Your task to perform on an android device: What's the weather like in Beijing? Image 0: 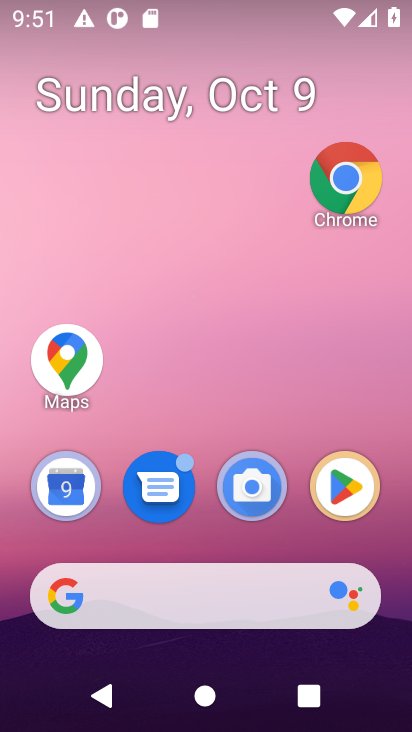
Step 0: click (331, 120)
Your task to perform on an android device: What's the weather like in Beijing? Image 1: 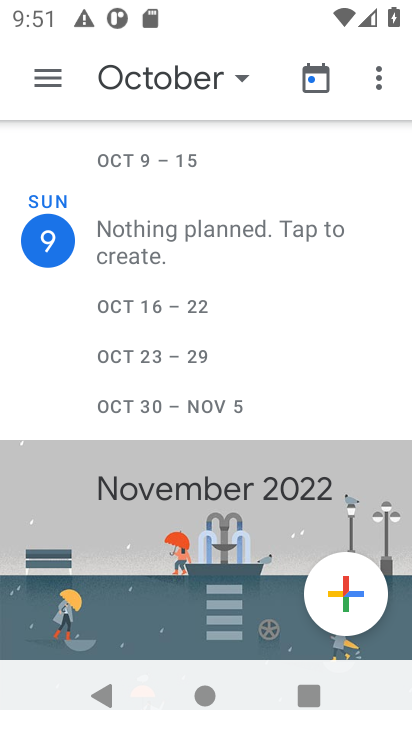
Step 1: press home button
Your task to perform on an android device: What's the weather like in Beijing? Image 2: 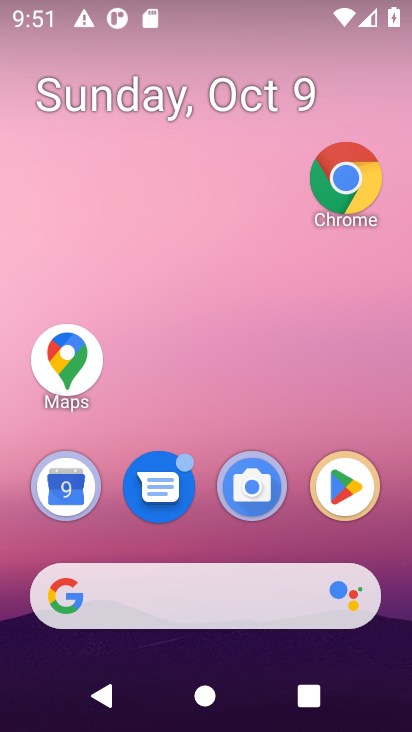
Step 2: click (230, 10)
Your task to perform on an android device: What's the weather like in Beijing? Image 3: 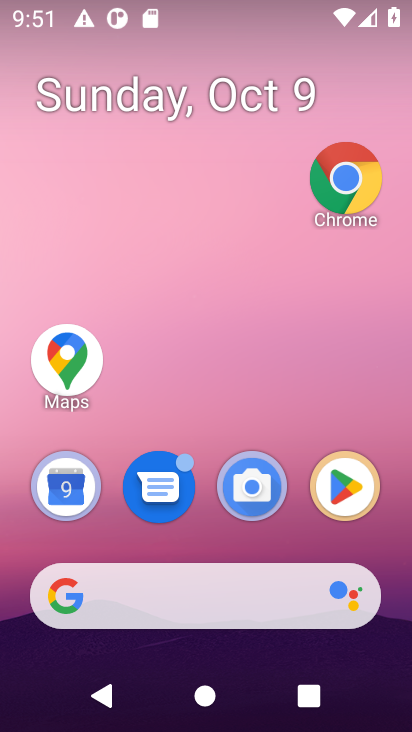
Step 3: click (204, 271)
Your task to perform on an android device: What's the weather like in Beijing? Image 4: 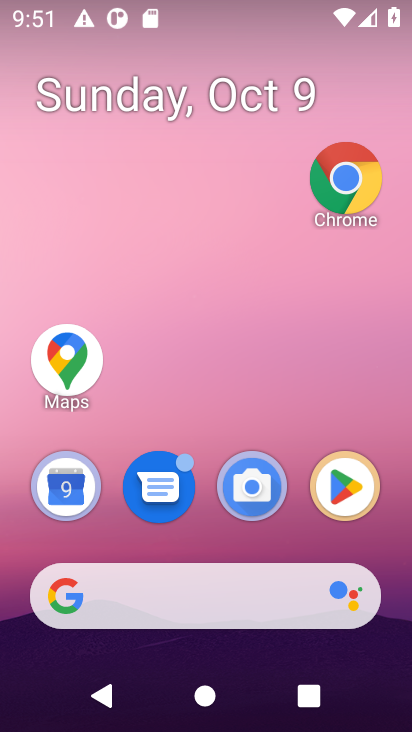
Step 4: drag from (241, 602) to (314, 101)
Your task to perform on an android device: What's the weather like in Beijing? Image 5: 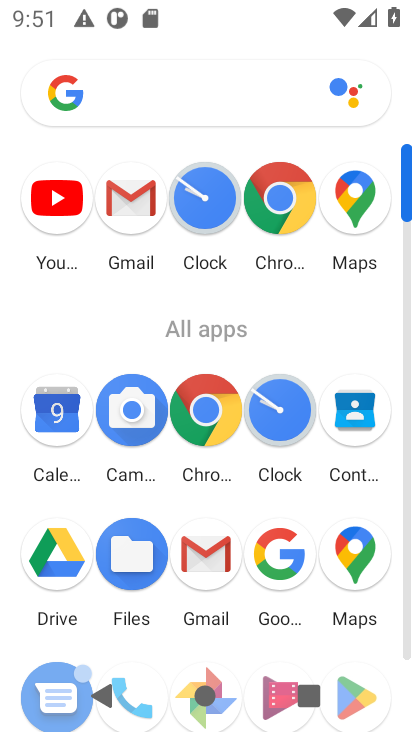
Step 5: click (284, 557)
Your task to perform on an android device: What's the weather like in Beijing? Image 6: 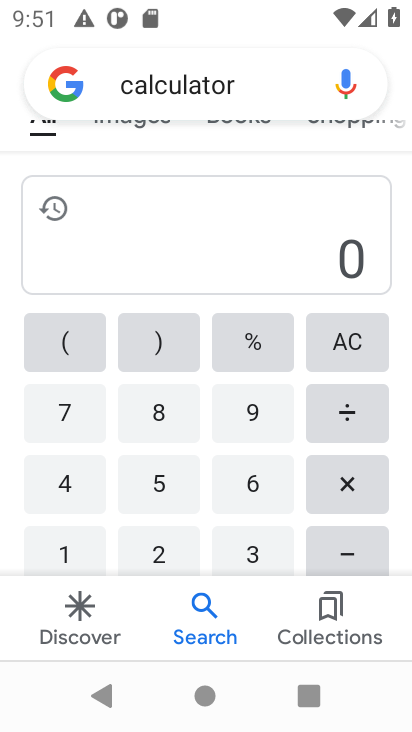
Step 6: click (294, 86)
Your task to perform on an android device: What's the weather like in Beijing? Image 7: 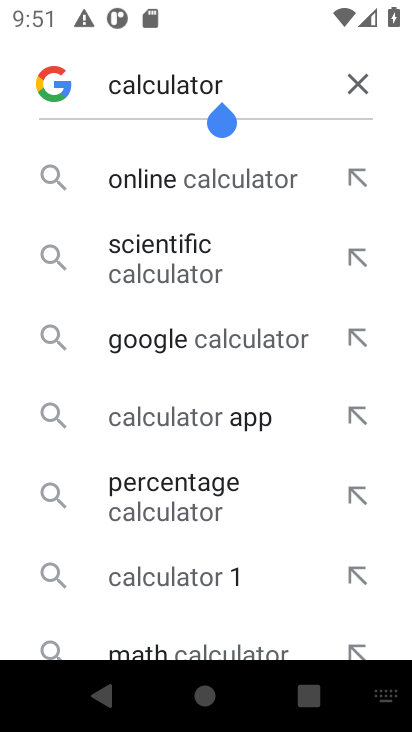
Step 7: click (356, 87)
Your task to perform on an android device: What's the weather like in Beijing? Image 8: 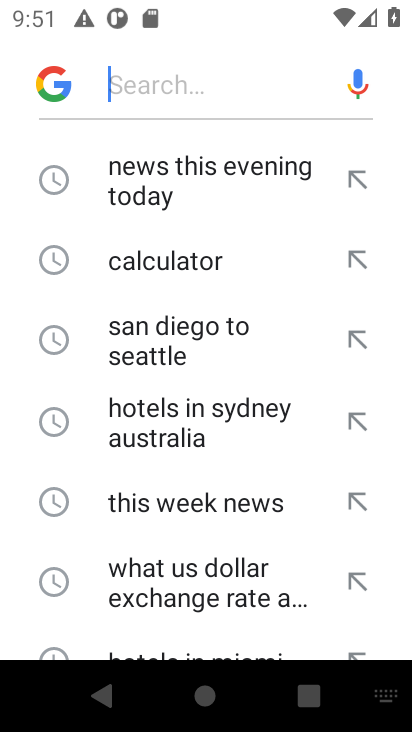
Step 8: type "weather like in Beijing"
Your task to perform on an android device: What's the weather like in Beijing? Image 9: 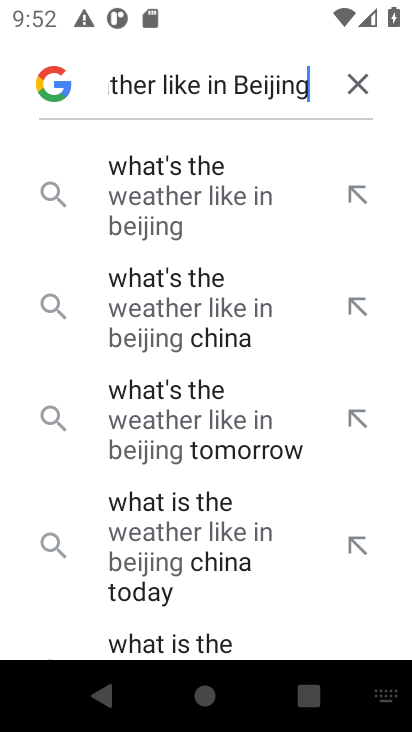
Step 9: click (220, 182)
Your task to perform on an android device: What's the weather like in Beijing? Image 10: 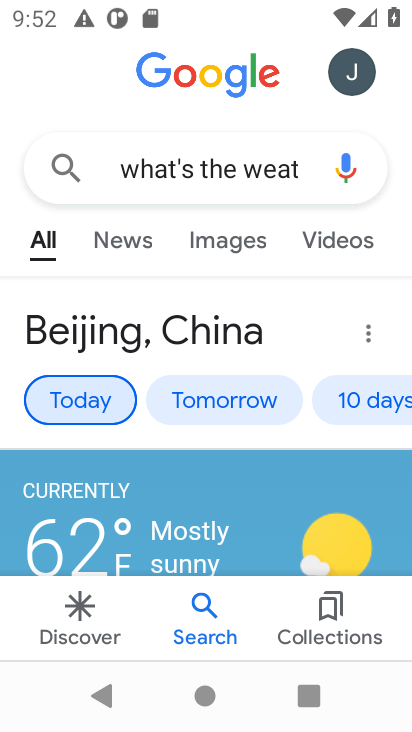
Step 10: task complete